Your task to perform on an android device: toggle priority inbox in the gmail app Image 0: 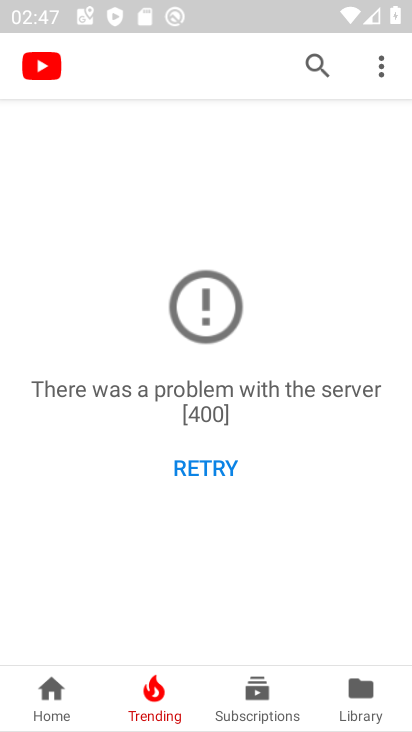
Step 0: press home button
Your task to perform on an android device: toggle priority inbox in the gmail app Image 1: 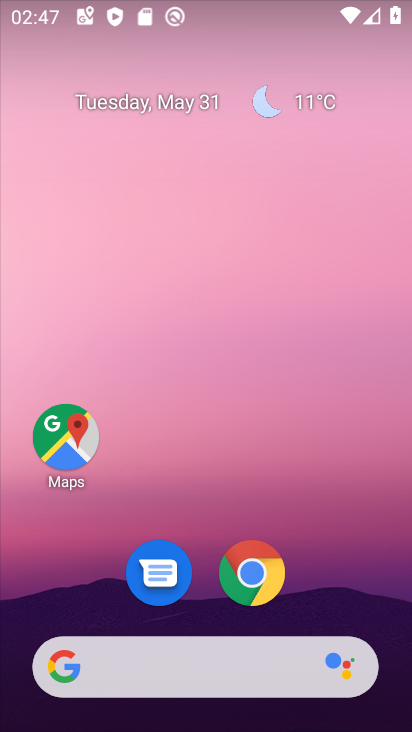
Step 1: drag from (329, 604) to (221, 9)
Your task to perform on an android device: toggle priority inbox in the gmail app Image 2: 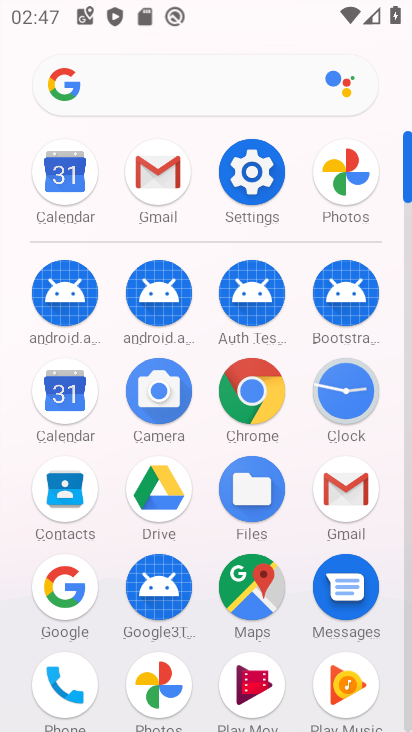
Step 2: click (164, 182)
Your task to perform on an android device: toggle priority inbox in the gmail app Image 3: 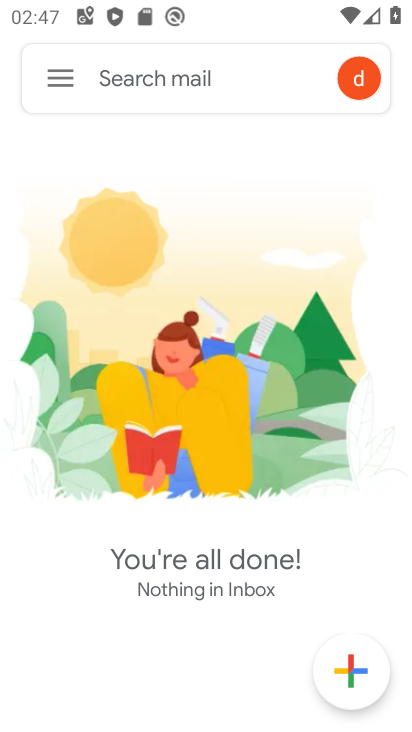
Step 3: click (65, 82)
Your task to perform on an android device: toggle priority inbox in the gmail app Image 4: 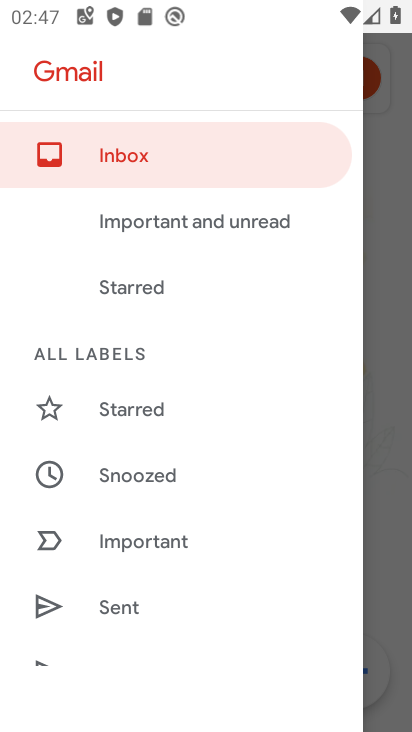
Step 4: drag from (187, 610) to (214, 97)
Your task to perform on an android device: toggle priority inbox in the gmail app Image 5: 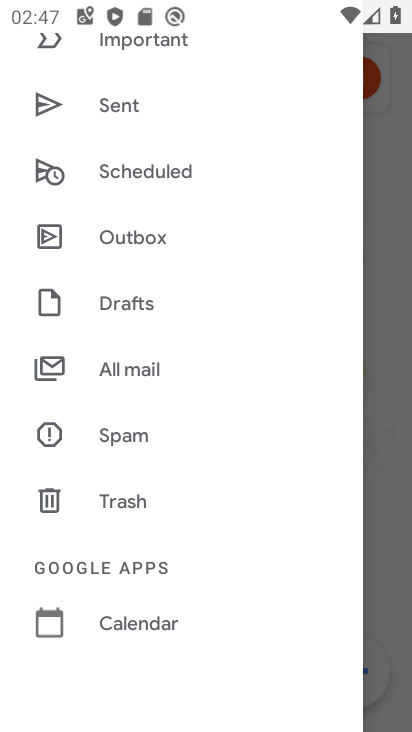
Step 5: drag from (188, 575) to (200, 134)
Your task to perform on an android device: toggle priority inbox in the gmail app Image 6: 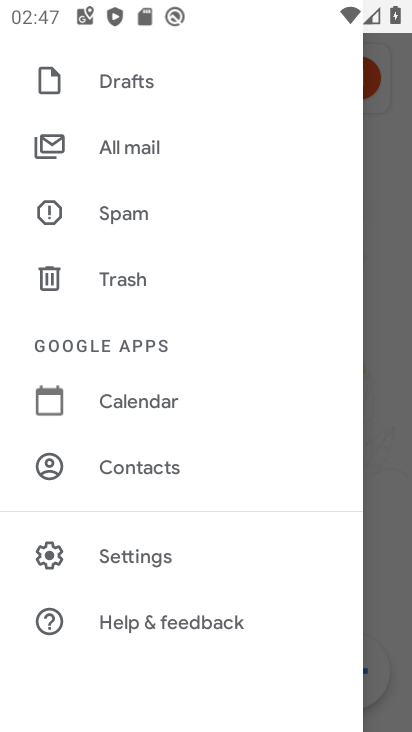
Step 6: click (164, 559)
Your task to perform on an android device: toggle priority inbox in the gmail app Image 7: 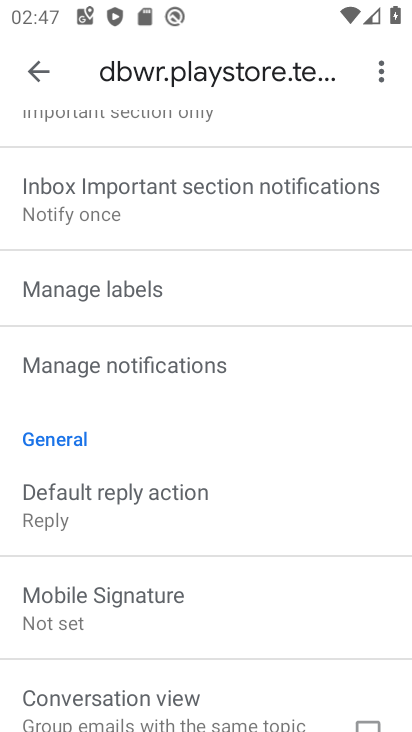
Step 7: drag from (191, 180) to (248, 713)
Your task to perform on an android device: toggle priority inbox in the gmail app Image 8: 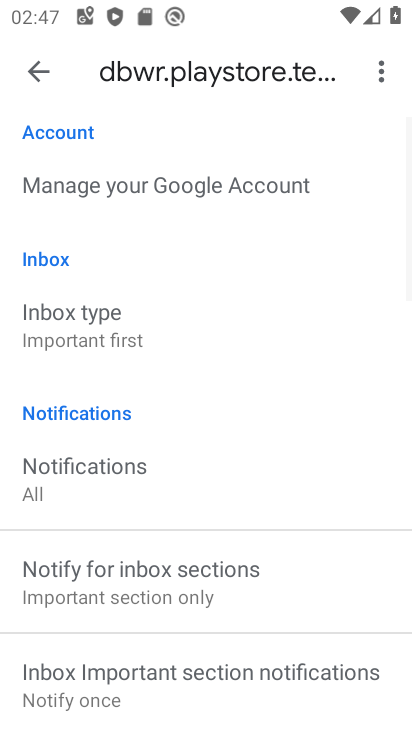
Step 8: click (219, 343)
Your task to perform on an android device: toggle priority inbox in the gmail app Image 9: 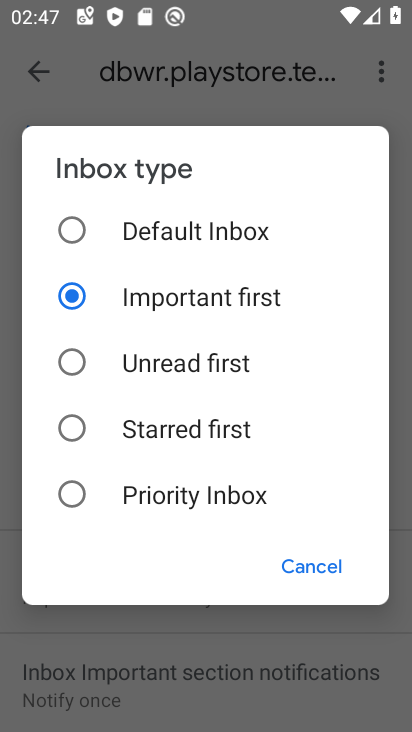
Step 9: click (200, 468)
Your task to perform on an android device: toggle priority inbox in the gmail app Image 10: 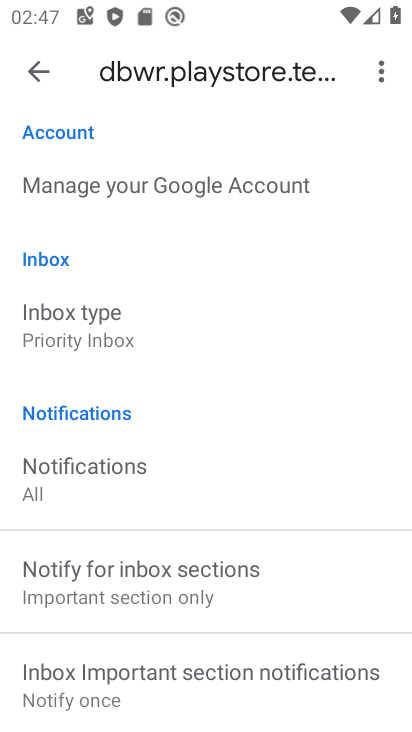
Step 10: task complete